Your task to perform on an android device: turn on the 12-hour format for clock Image 0: 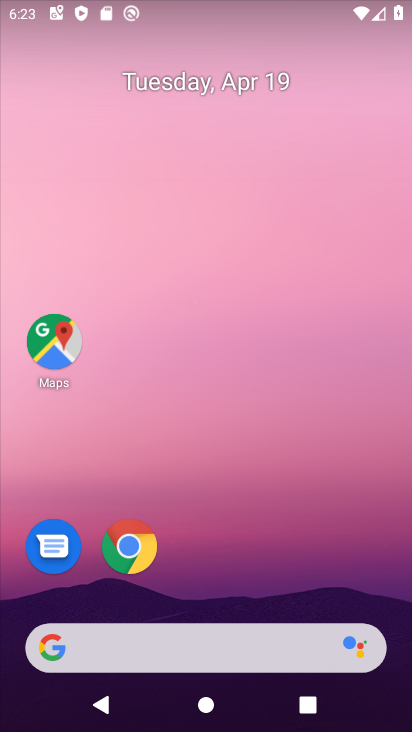
Step 0: drag from (276, 578) to (326, 86)
Your task to perform on an android device: turn on the 12-hour format for clock Image 1: 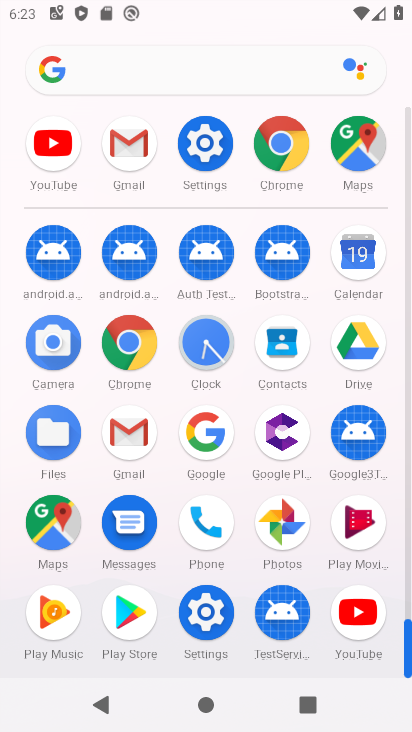
Step 1: click (202, 345)
Your task to perform on an android device: turn on the 12-hour format for clock Image 2: 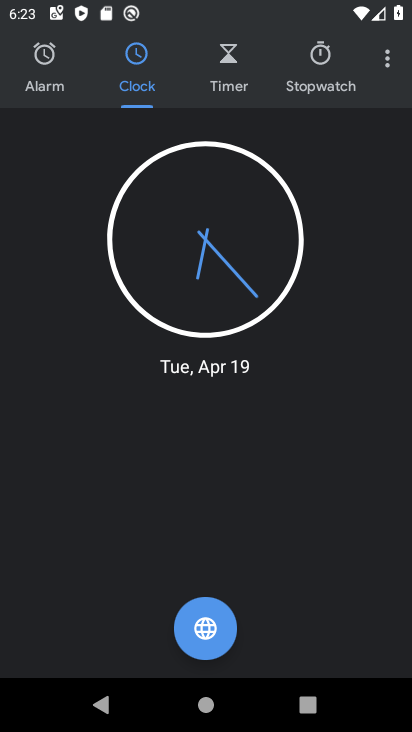
Step 2: click (383, 57)
Your task to perform on an android device: turn on the 12-hour format for clock Image 3: 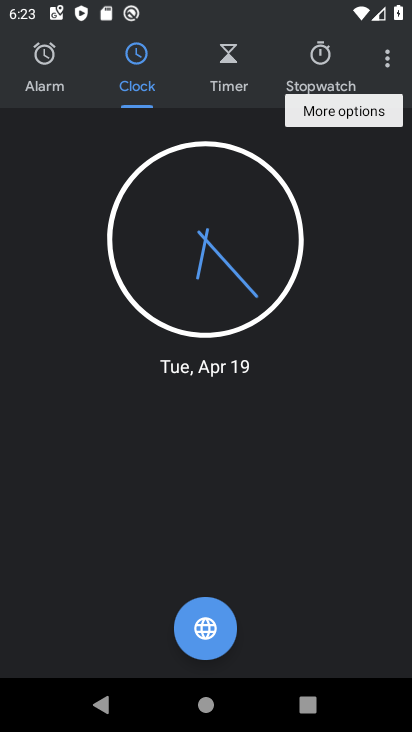
Step 3: click (330, 98)
Your task to perform on an android device: turn on the 12-hour format for clock Image 4: 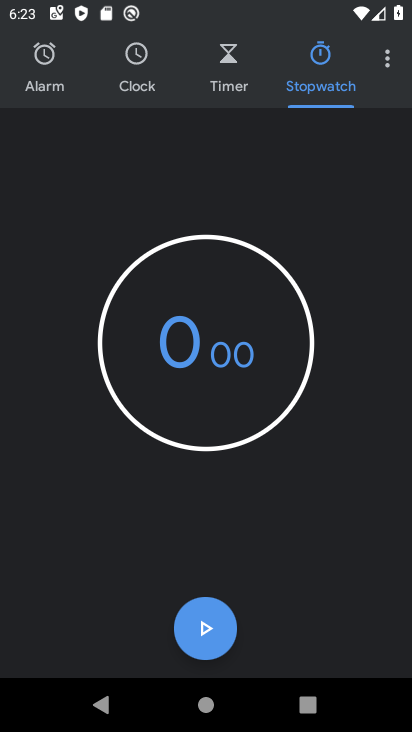
Step 4: click (393, 60)
Your task to perform on an android device: turn on the 12-hour format for clock Image 5: 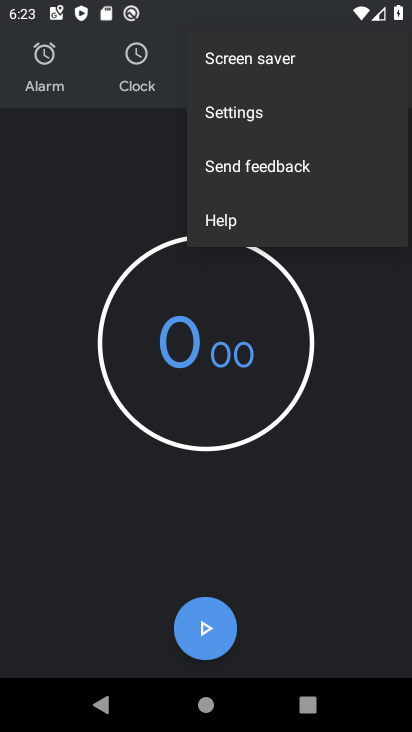
Step 5: click (250, 117)
Your task to perform on an android device: turn on the 12-hour format for clock Image 6: 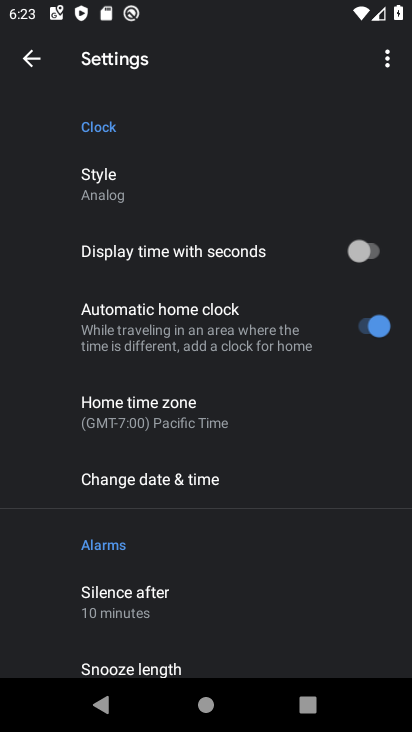
Step 6: click (171, 479)
Your task to perform on an android device: turn on the 12-hour format for clock Image 7: 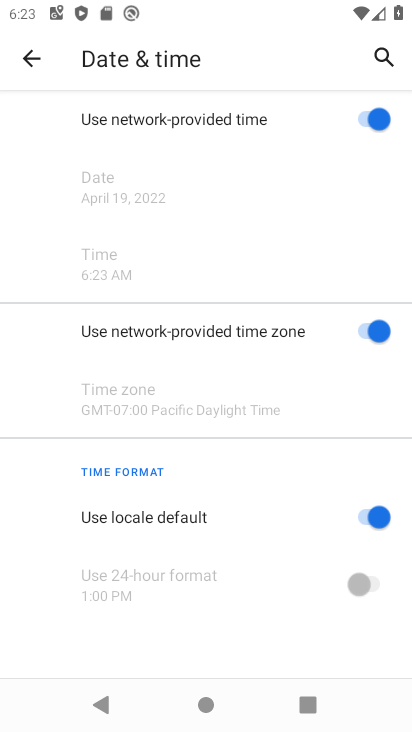
Step 7: task complete